Your task to perform on an android device: Open the Play Movies app and select the watchlist tab. Image 0: 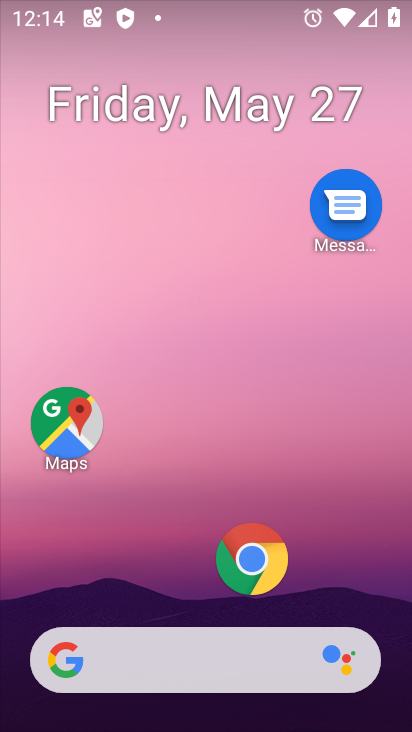
Step 0: drag from (213, 640) to (237, 148)
Your task to perform on an android device: Open the Play Movies app and select the watchlist tab. Image 1: 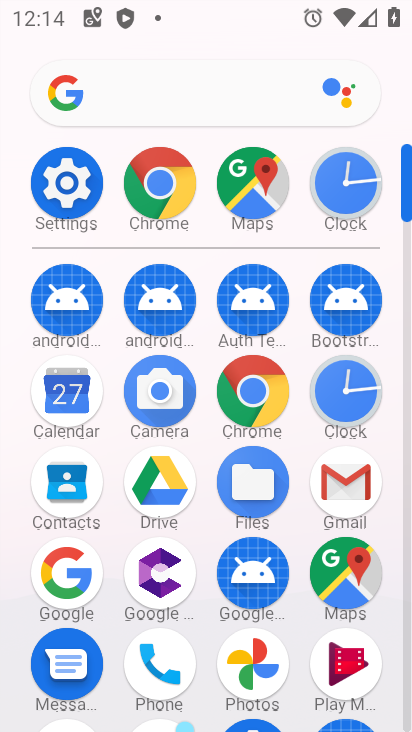
Step 1: drag from (246, 507) to (411, 382)
Your task to perform on an android device: Open the Play Movies app and select the watchlist tab. Image 2: 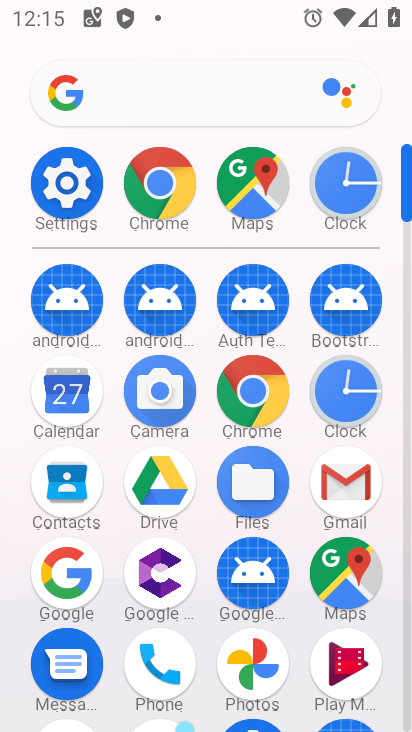
Step 2: click (350, 504)
Your task to perform on an android device: Open the Play Movies app and select the watchlist tab. Image 3: 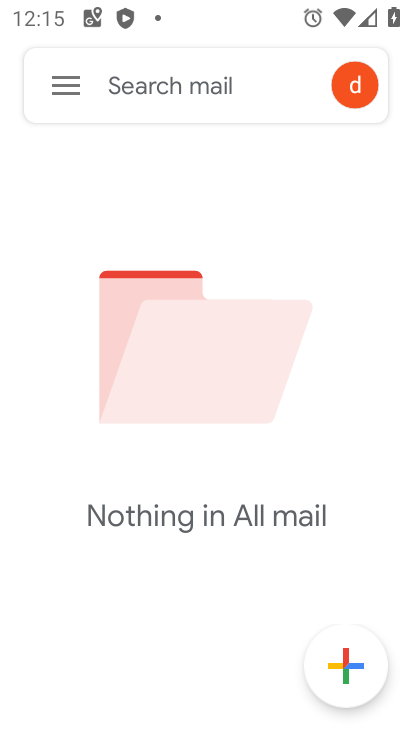
Step 3: task complete